Your task to perform on an android device: turn on the 12-hour format for clock Image 0: 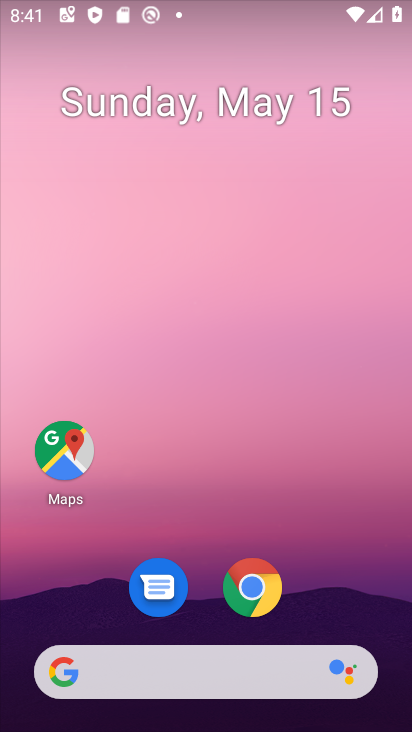
Step 0: drag from (371, 638) to (329, 78)
Your task to perform on an android device: turn on the 12-hour format for clock Image 1: 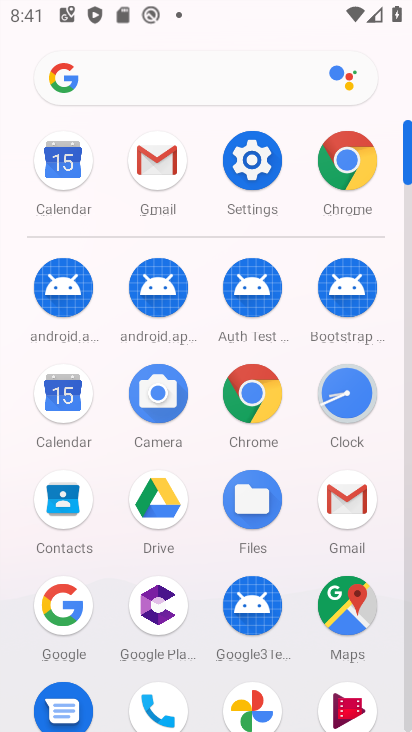
Step 1: click (345, 444)
Your task to perform on an android device: turn on the 12-hour format for clock Image 2: 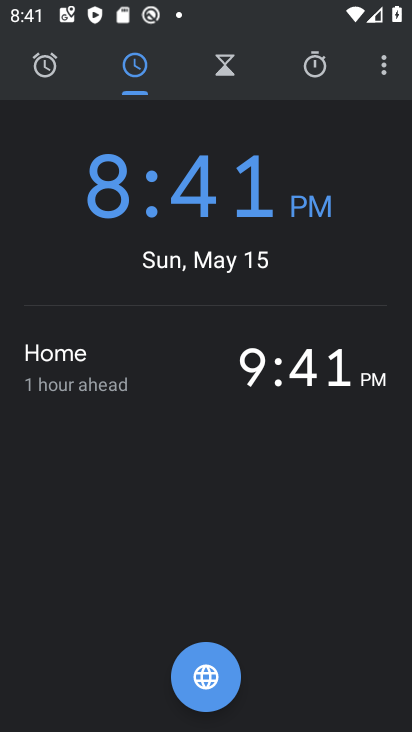
Step 2: click (391, 62)
Your task to perform on an android device: turn on the 12-hour format for clock Image 3: 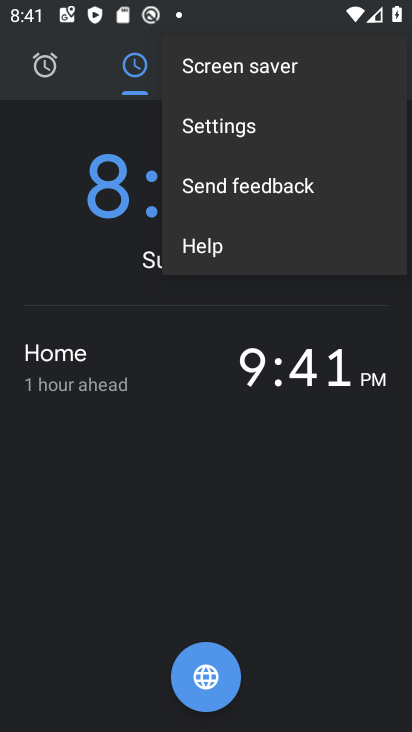
Step 3: click (292, 126)
Your task to perform on an android device: turn on the 12-hour format for clock Image 4: 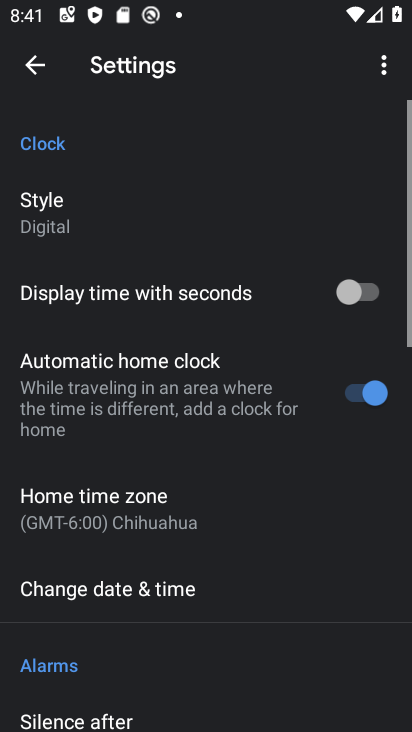
Step 4: click (125, 574)
Your task to perform on an android device: turn on the 12-hour format for clock Image 5: 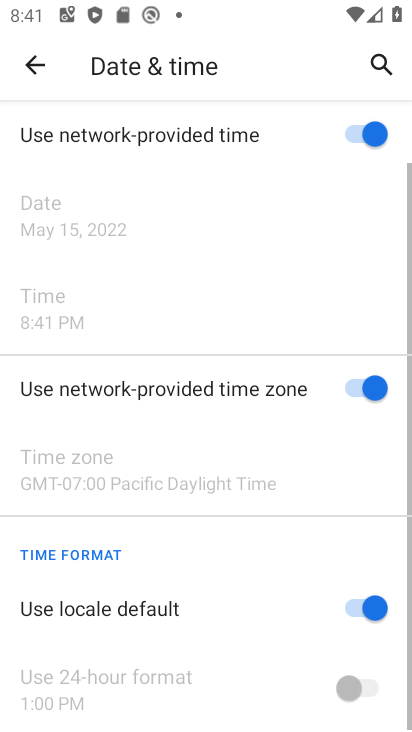
Step 5: task complete